Your task to perform on an android device: turn smart compose on in the gmail app Image 0: 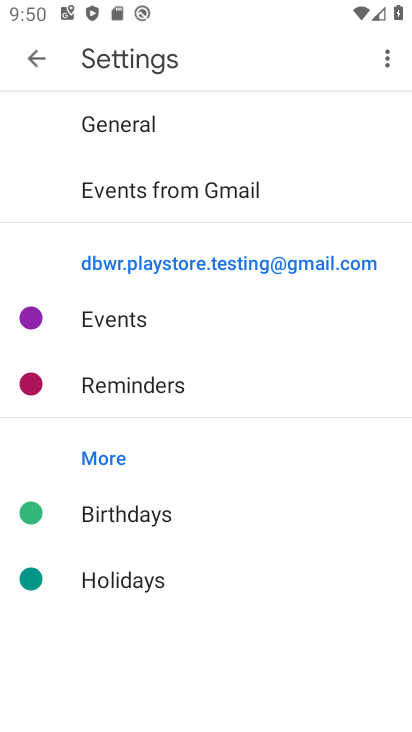
Step 0: press back button
Your task to perform on an android device: turn smart compose on in the gmail app Image 1: 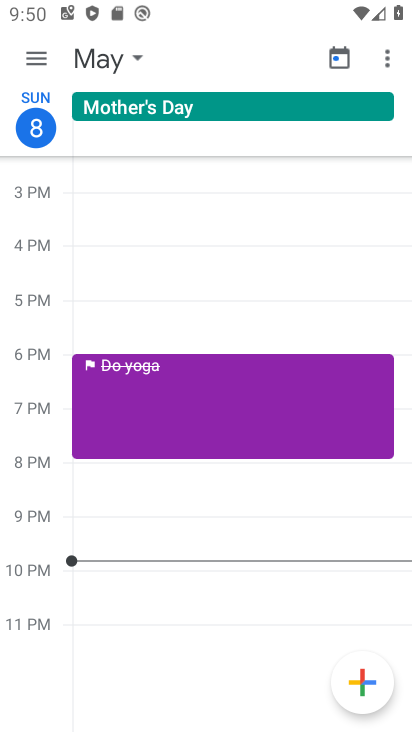
Step 1: press back button
Your task to perform on an android device: turn smart compose on in the gmail app Image 2: 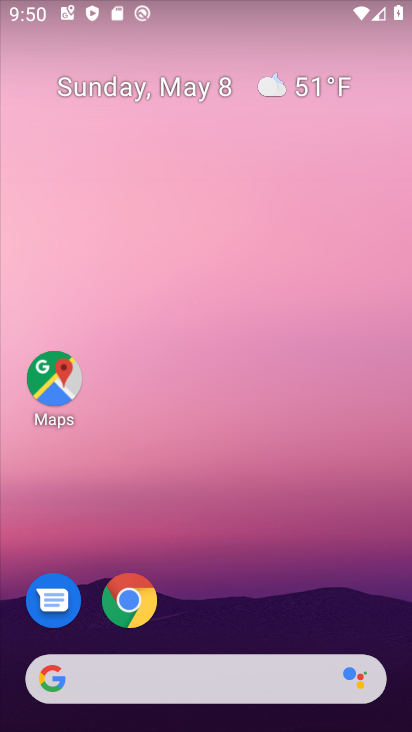
Step 2: drag from (226, 618) to (180, 27)
Your task to perform on an android device: turn smart compose on in the gmail app Image 3: 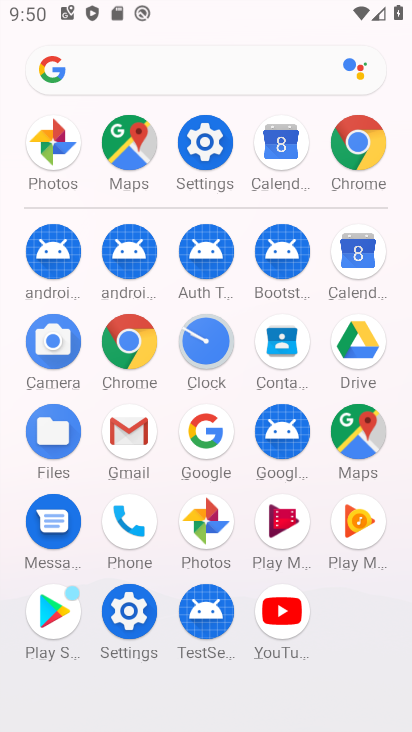
Step 3: click (123, 422)
Your task to perform on an android device: turn smart compose on in the gmail app Image 4: 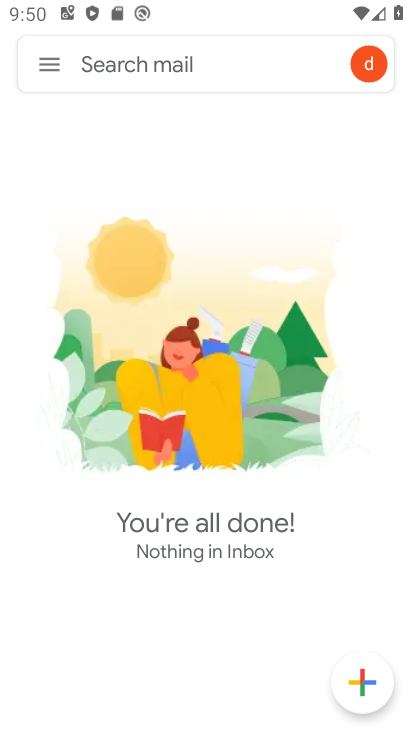
Step 4: click (54, 59)
Your task to perform on an android device: turn smart compose on in the gmail app Image 5: 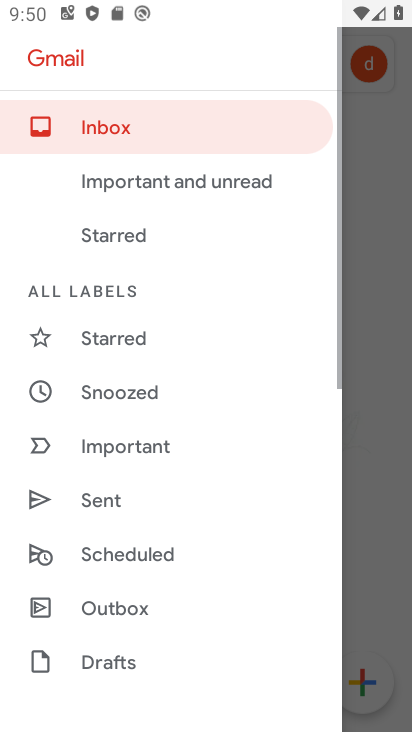
Step 5: drag from (178, 582) to (197, 120)
Your task to perform on an android device: turn smart compose on in the gmail app Image 6: 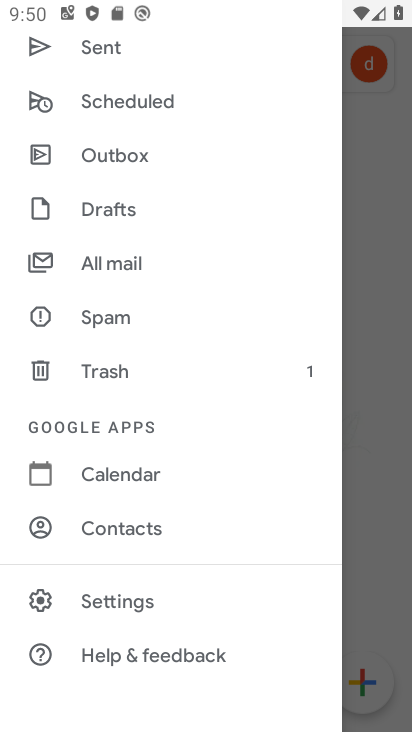
Step 6: click (132, 603)
Your task to perform on an android device: turn smart compose on in the gmail app Image 7: 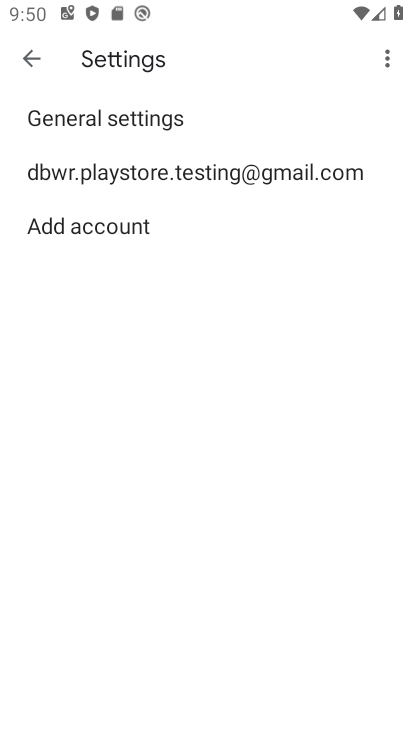
Step 7: click (192, 171)
Your task to perform on an android device: turn smart compose on in the gmail app Image 8: 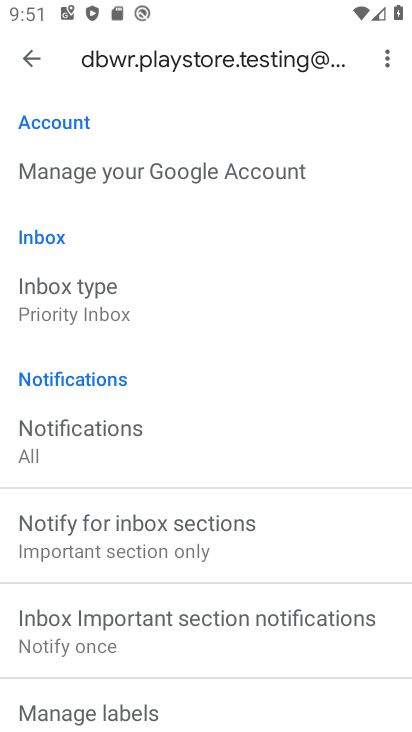
Step 8: task complete